Your task to perform on an android device: How much does a 2 bedroom apartment rent for in New York? Image 0: 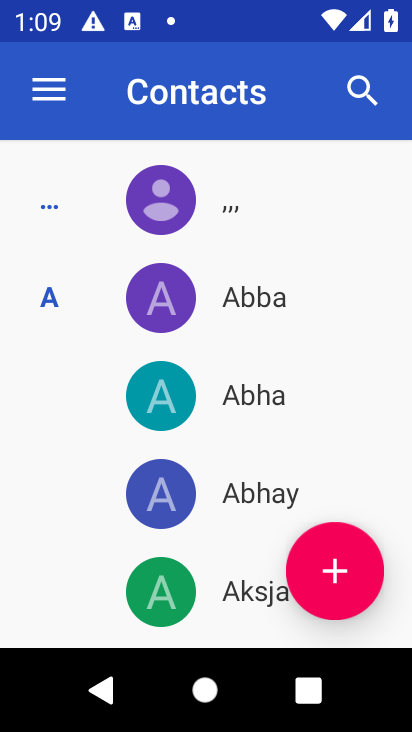
Step 0: press home button
Your task to perform on an android device: How much does a 2 bedroom apartment rent for in New York? Image 1: 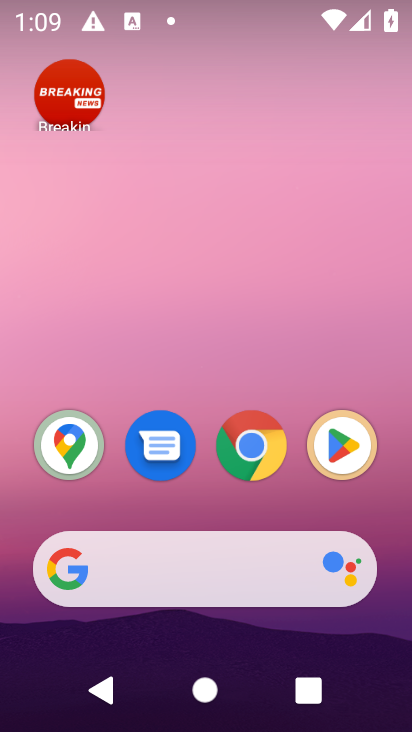
Step 1: click (71, 565)
Your task to perform on an android device: How much does a 2 bedroom apartment rent for in New York? Image 2: 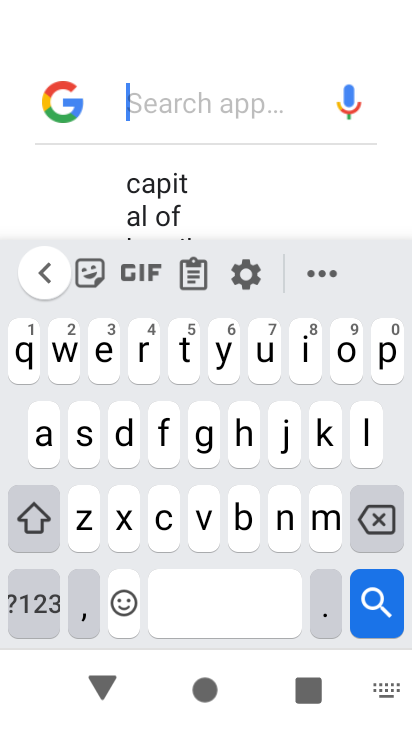
Step 2: click (169, 108)
Your task to perform on an android device: How much does a 2 bedroom apartment rent for in New York? Image 3: 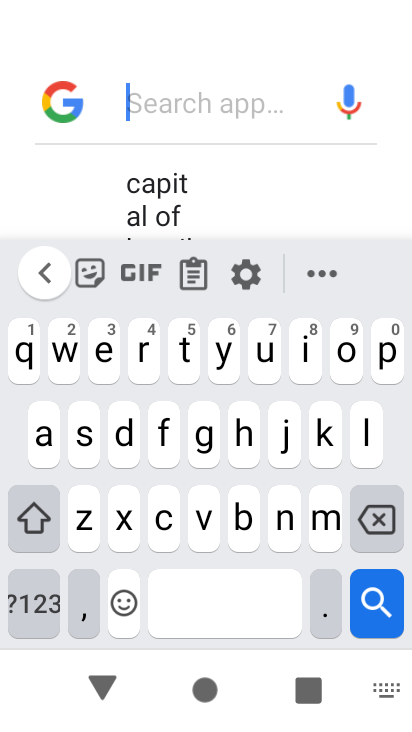
Step 3: type "how much does a 2 bedroom apartment rent in new york ?"
Your task to perform on an android device: How much does a 2 bedroom apartment rent for in New York? Image 4: 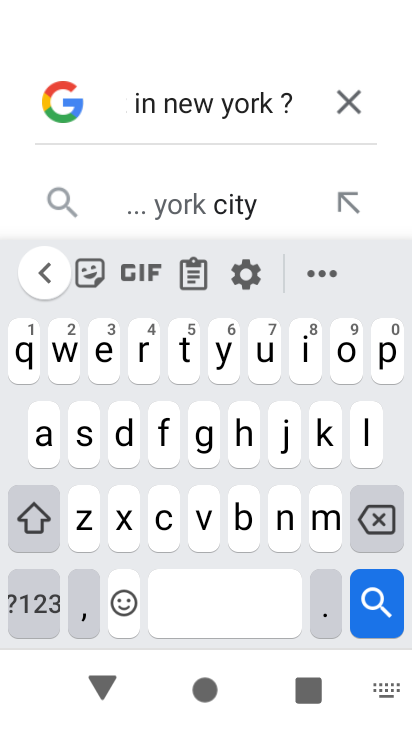
Step 4: click (193, 201)
Your task to perform on an android device: How much does a 2 bedroom apartment rent for in New York? Image 5: 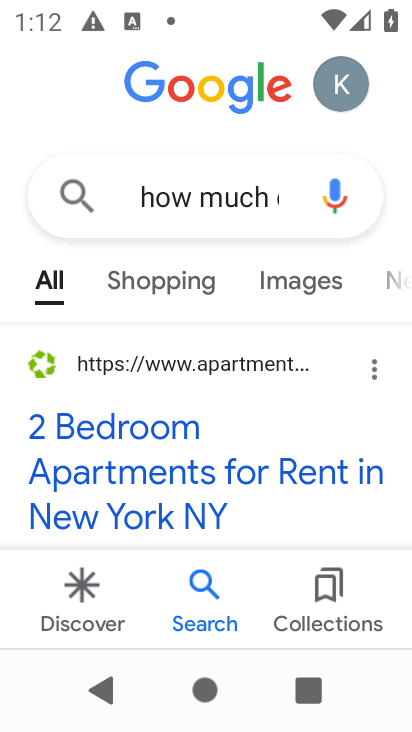
Step 5: task complete